Your task to perform on an android device: turn on location history Image 0: 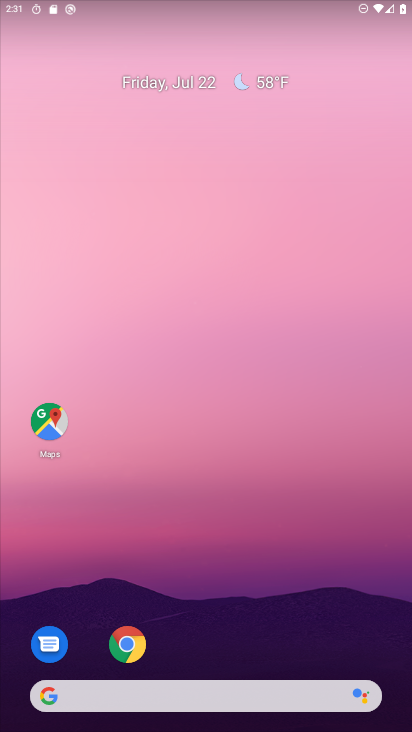
Step 0: drag from (203, 648) to (226, 198)
Your task to perform on an android device: turn on location history Image 1: 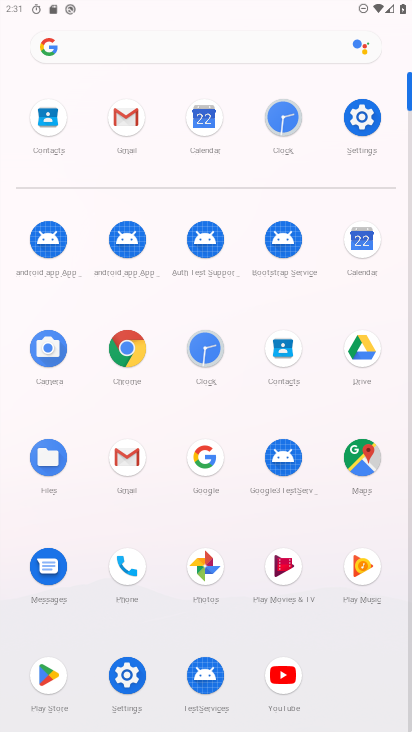
Step 1: click (358, 110)
Your task to perform on an android device: turn on location history Image 2: 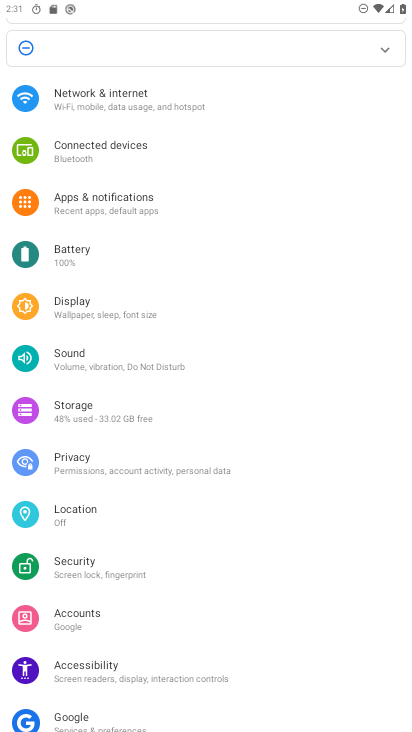
Step 2: click (110, 510)
Your task to perform on an android device: turn on location history Image 3: 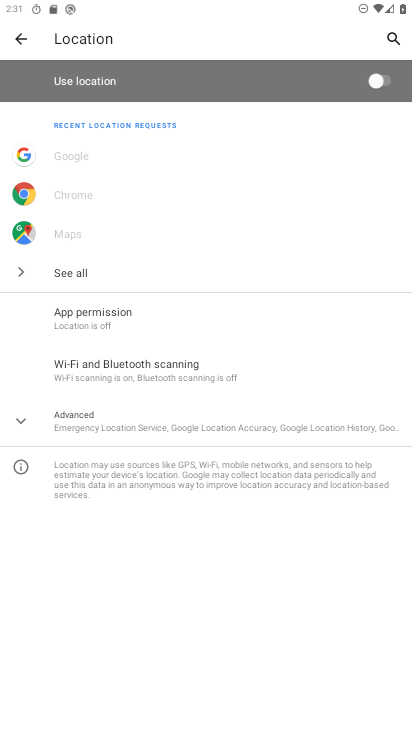
Step 3: click (142, 422)
Your task to perform on an android device: turn on location history Image 4: 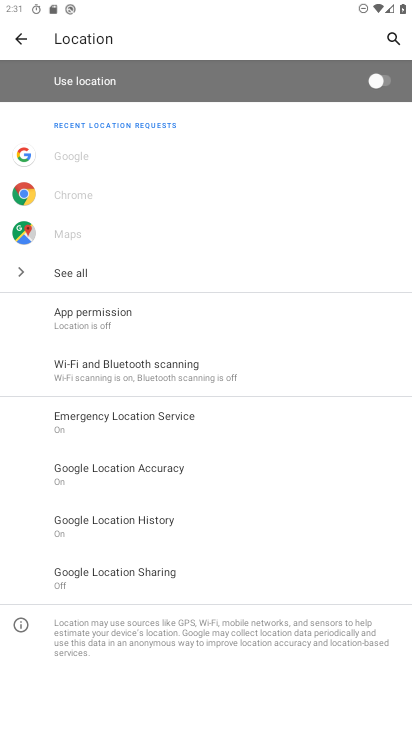
Step 4: click (156, 523)
Your task to perform on an android device: turn on location history Image 5: 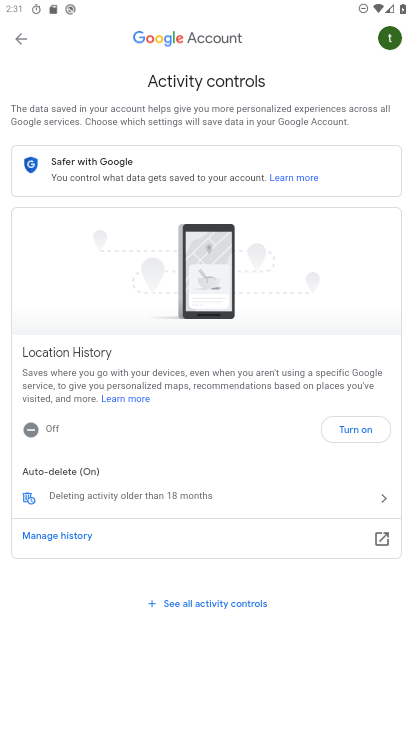
Step 5: click (328, 435)
Your task to perform on an android device: turn on location history Image 6: 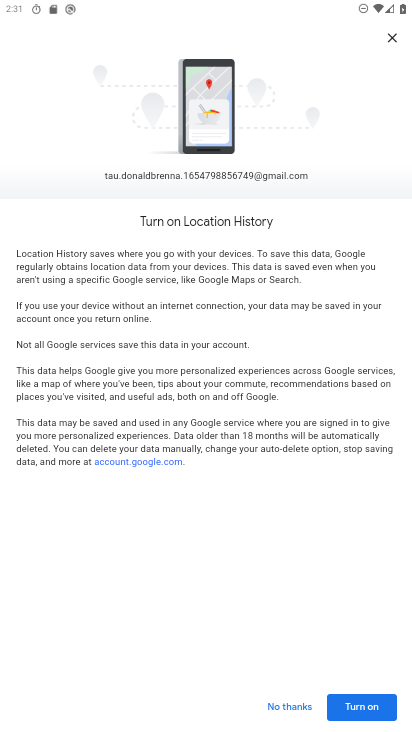
Step 6: drag from (343, 524) to (335, 658)
Your task to perform on an android device: turn on location history Image 7: 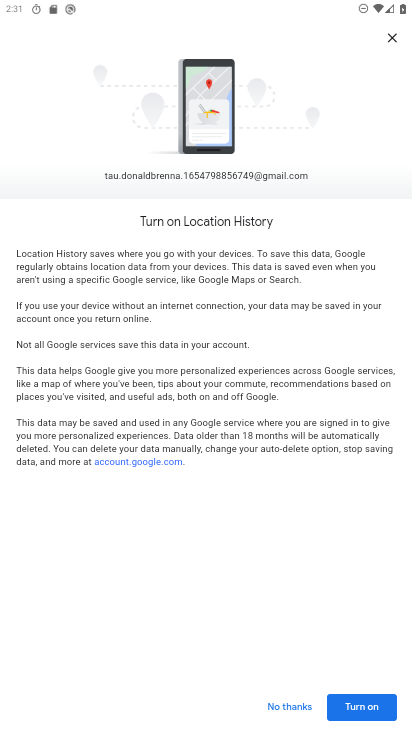
Step 7: drag from (335, 658) to (358, 721)
Your task to perform on an android device: turn on location history Image 8: 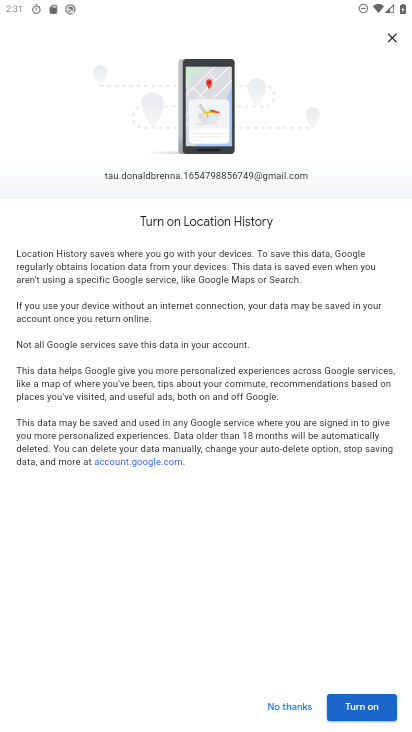
Step 8: click (355, 709)
Your task to perform on an android device: turn on location history Image 9: 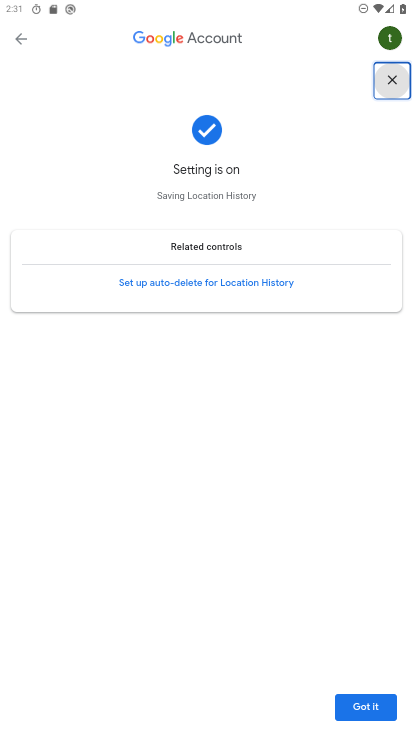
Step 9: click (355, 708)
Your task to perform on an android device: turn on location history Image 10: 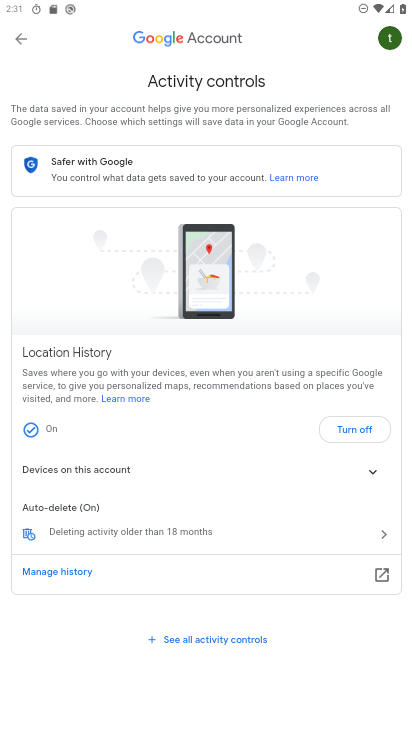
Step 10: task complete